Your task to perform on an android device: change notifications settings Image 0: 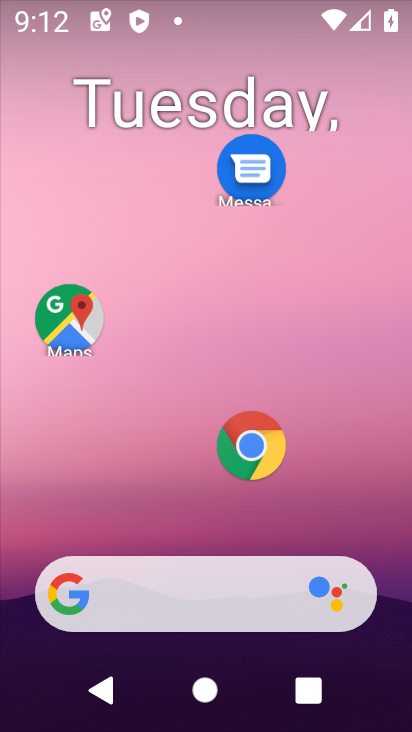
Step 0: drag from (208, 543) to (254, 118)
Your task to perform on an android device: change notifications settings Image 1: 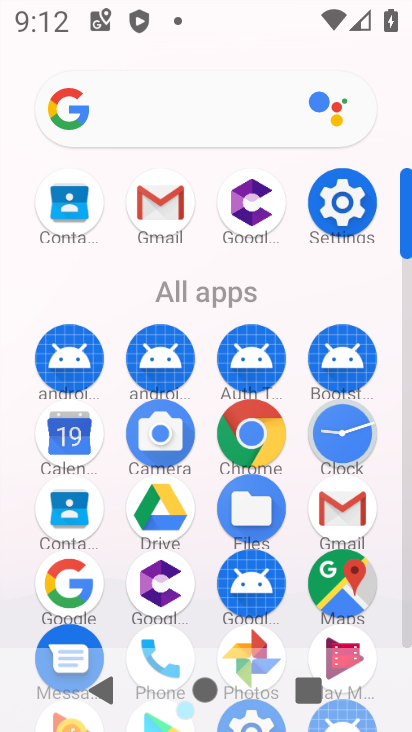
Step 1: click (345, 217)
Your task to perform on an android device: change notifications settings Image 2: 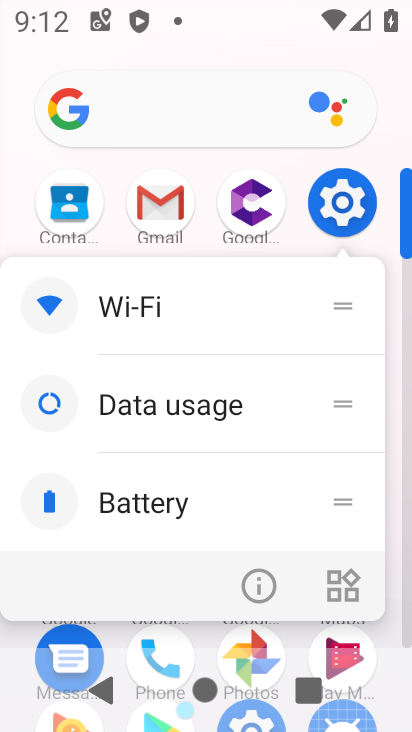
Step 2: click (340, 205)
Your task to perform on an android device: change notifications settings Image 3: 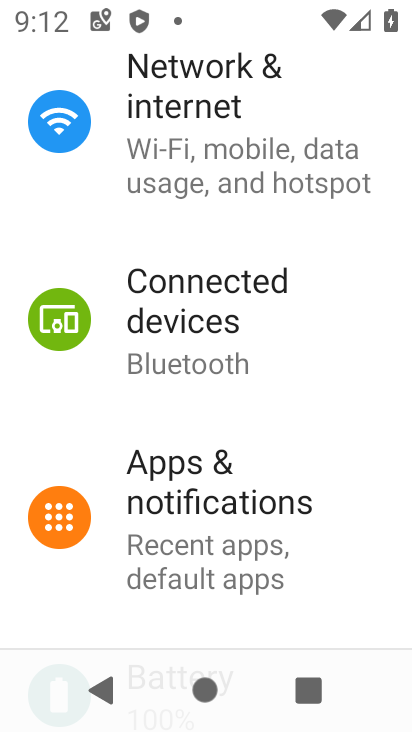
Step 3: click (231, 536)
Your task to perform on an android device: change notifications settings Image 4: 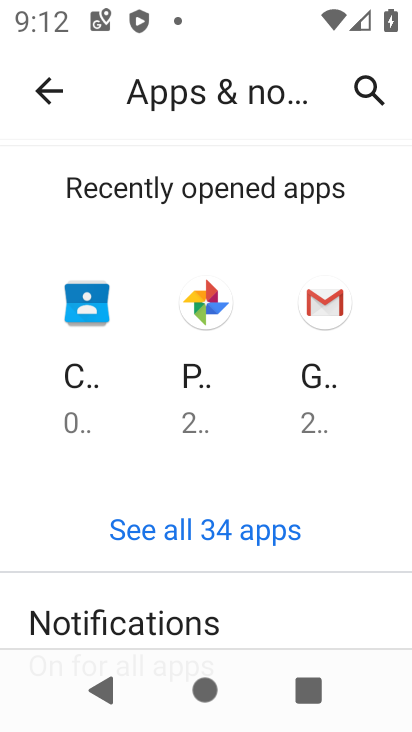
Step 4: drag from (171, 533) to (268, 256)
Your task to perform on an android device: change notifications settings Image 5: 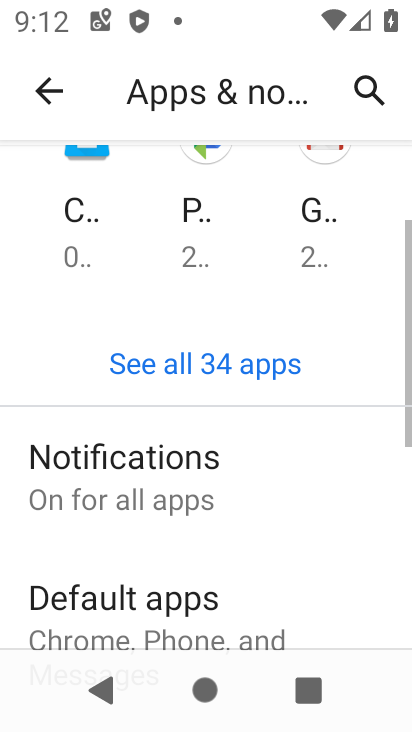
Step 5: click (163, 437)
Your task to perform on an android device: change notifications settings Image 6: 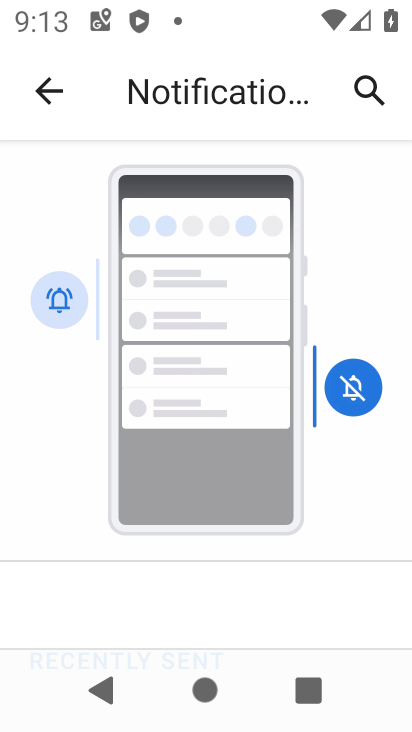
Step 6: drag from (193, 628) to (242, 115)
Your task to perform on an android device: change notifications settings Image 7: 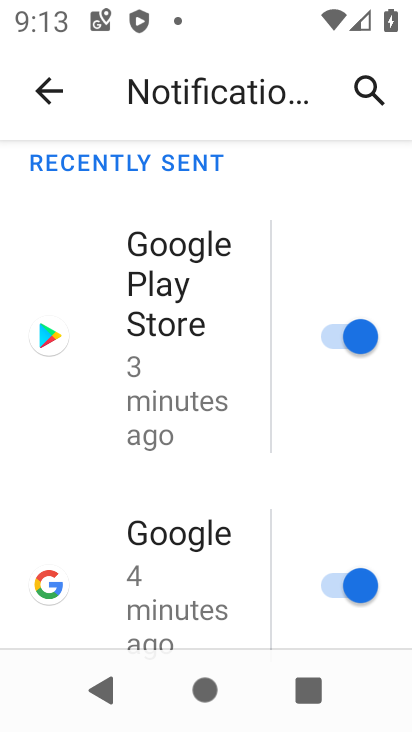
Step 7: drag from (211, 530) to (266, 105)
Your task to perform on an android device: change notifications settings Image 8: 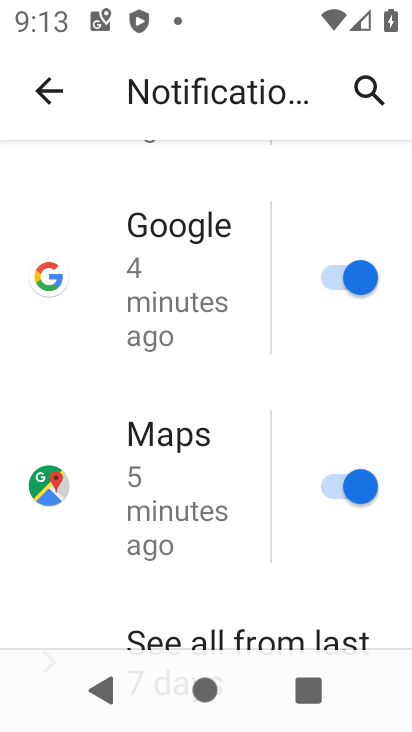
Step 8: drag from (206, 593) to (245, 282)
Your task to perform on an android device: change notifications settings Image 9: 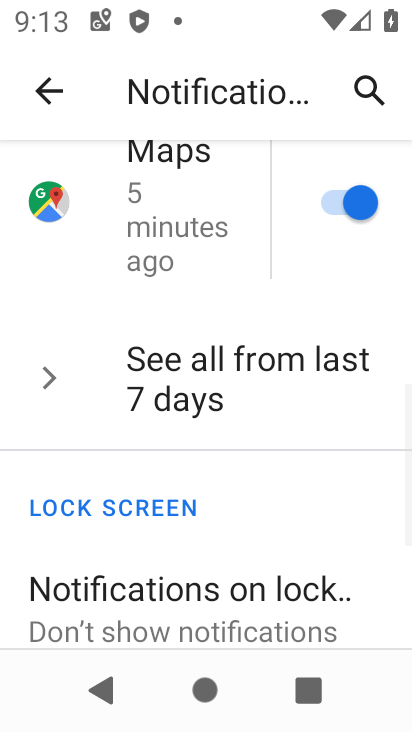
Step 9: drag from (219, 518) to (272, 147)
Your task to perform on an android device: change notifications settings Image 10: 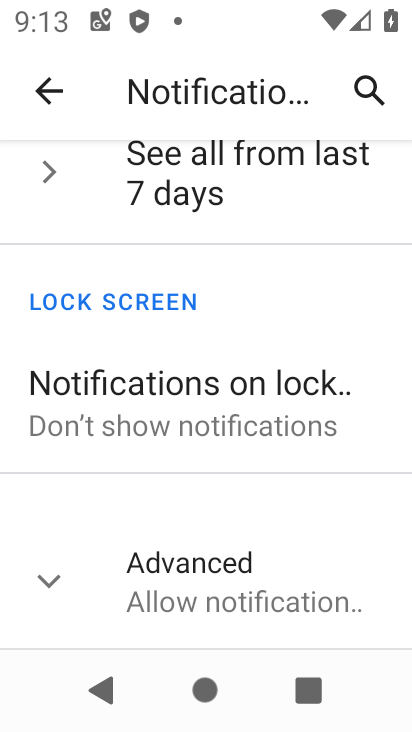
Step 10: click (156, 606)
Your task to perform on an android device: change notifications settings Image 11: 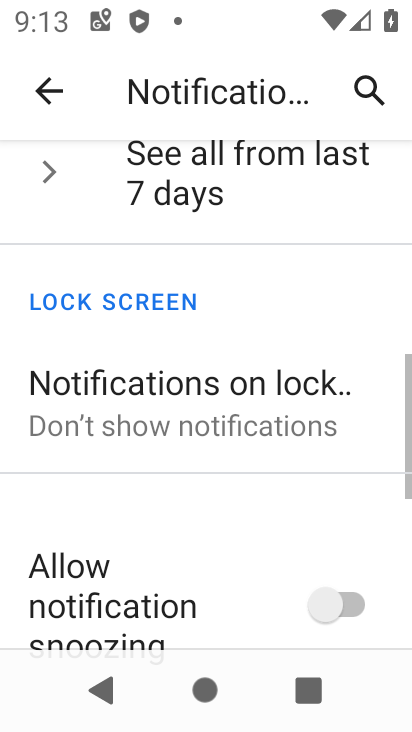
Step 11: drag from (163, 597) to (241, 262)
Your task to perform on an android device: change notifications settings Image 12: 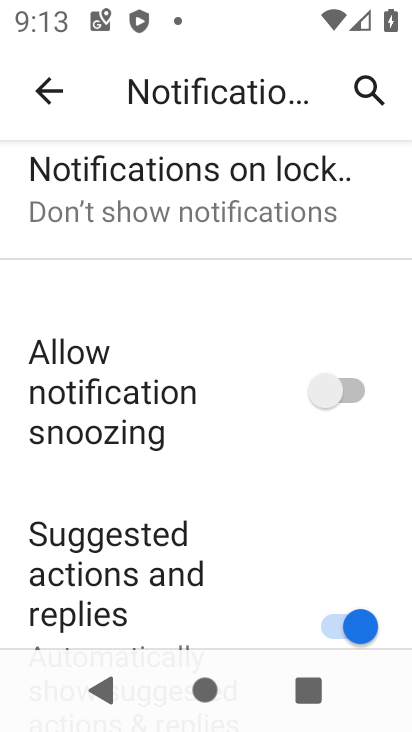
Step 12: click (340, 391)
Your task to perform on an android device: change notifications settings Image 13: 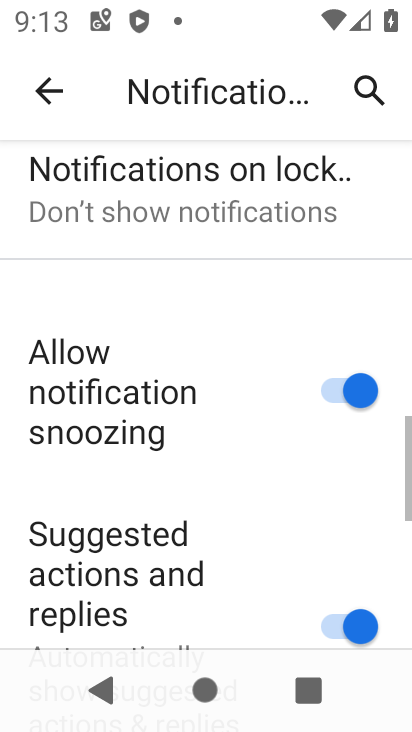
Step 13: task complete